Your task to perform on an android device: turn off notifications in google photos Image 0: 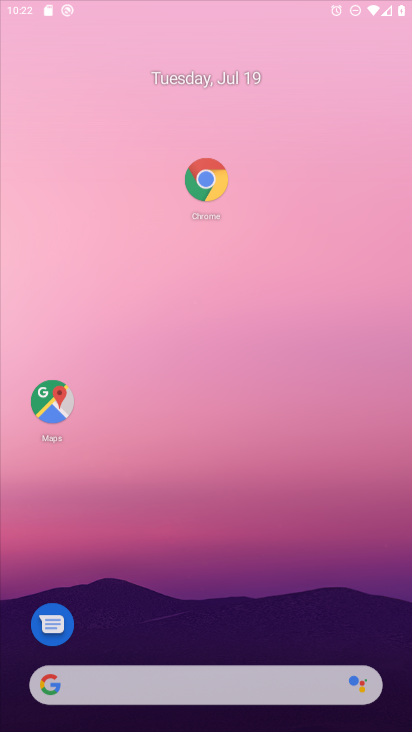
Step 0: press home button
Your task to perform on an android device: turn off notifications in google photos Image 1: 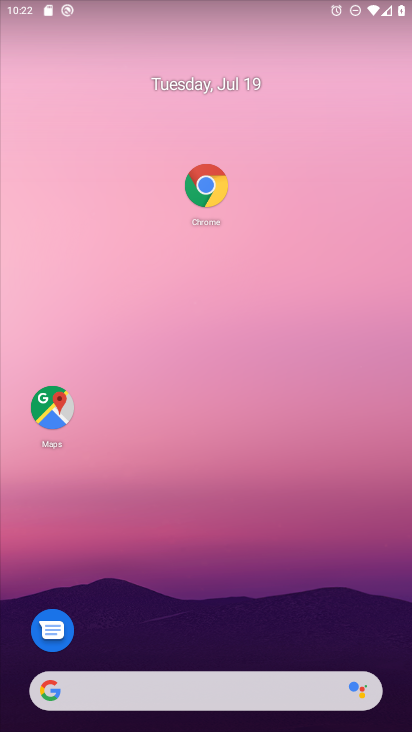
Step 1: drag from (161, 665) to (176, 2)
Your task to perform on an android device: turn off notifications in google photos Image 2: 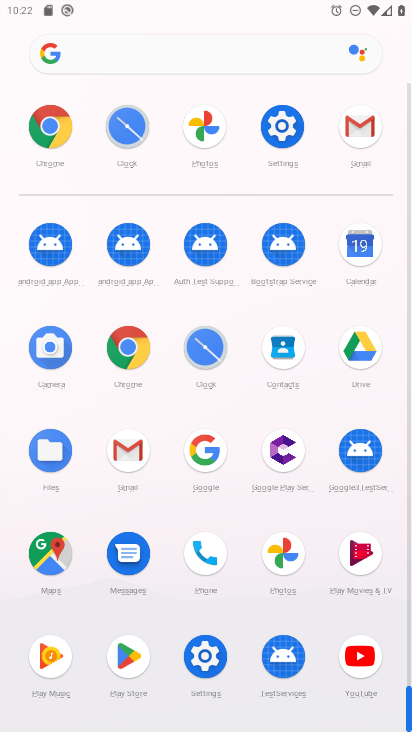
Step 2: click (275, 124)
Your task to perform on an android device: turn off notifications in google photos Image 3: 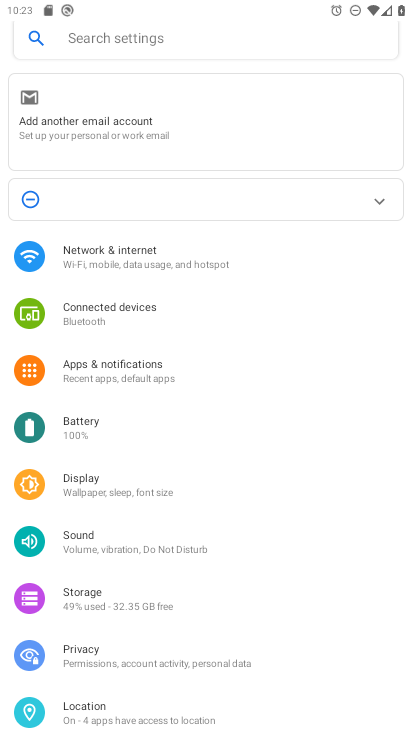
Step 3: click (137, 370)
Your task to perform on an android device: turn off notifications in google photos Image 4: 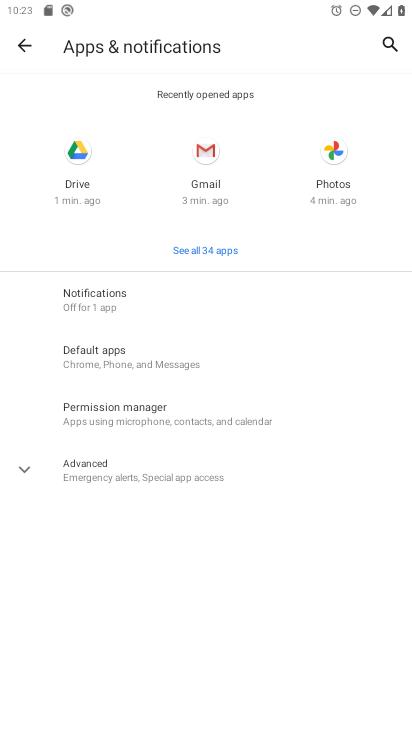
Step 4: press home button
Your task to perform on an android device: turn off notifications in google photos Image 5: 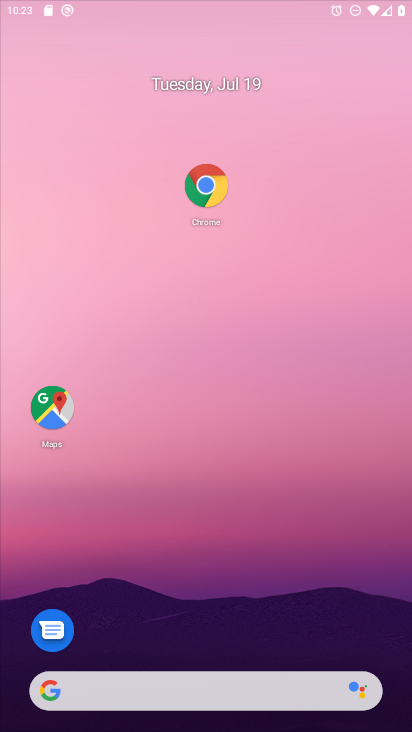
Step 5: drag from (168, 658) to (258, 5)
Your task to perform on an android device: turn off notifications in google photos Image 6: 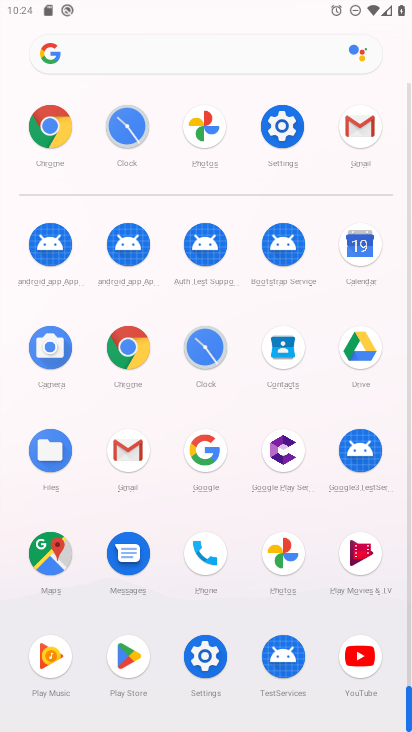
Step 6: click (277, 565)
Your task to perform on an android device: turn off notifications in google photos Image 7: 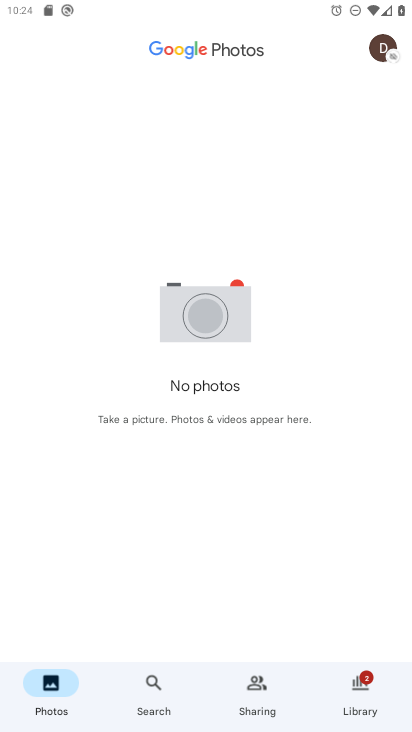
Step 7: click (383, 55)
Your task to perform on an android device: turn off notifications in google photos Image 8: 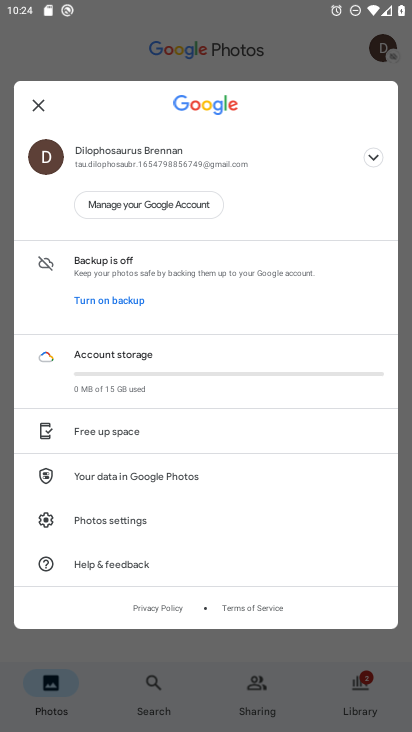
Step 8: click (133, 523)
Your task to perform on an android device: turn off notifications in google photos Image 9: 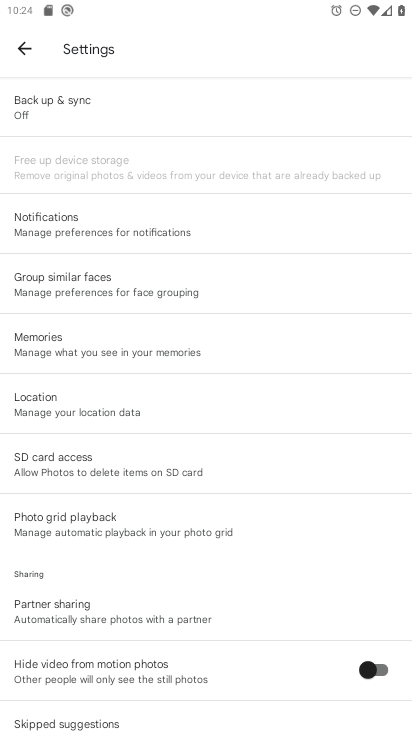
Step 9: click (128, 223)
Your task to perform on an android device: turn off notifications in google photos Image 10: 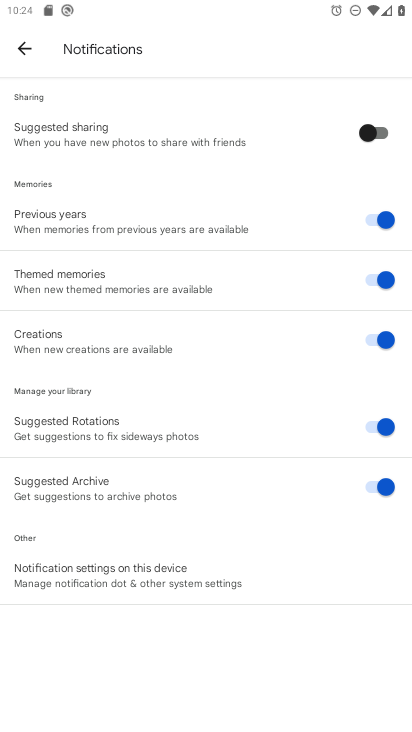
Step 10: click (142, 571)
Your task to perform on an android device: turn off notifications in google photos Image 11: 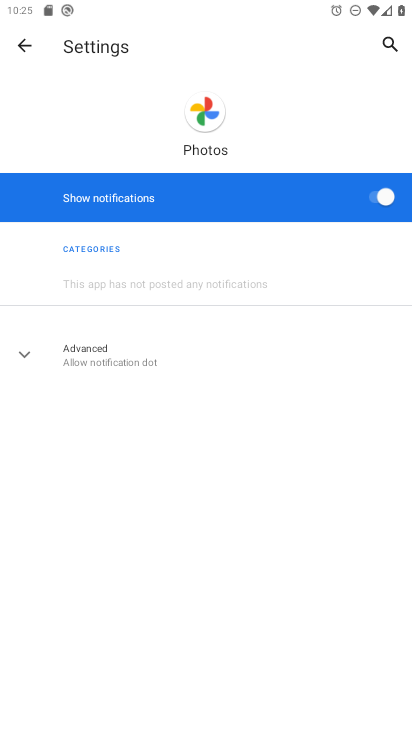
Step 11: click (369, 204)
Your task to perform on an android device: turn off notifications in google photos Image 12: 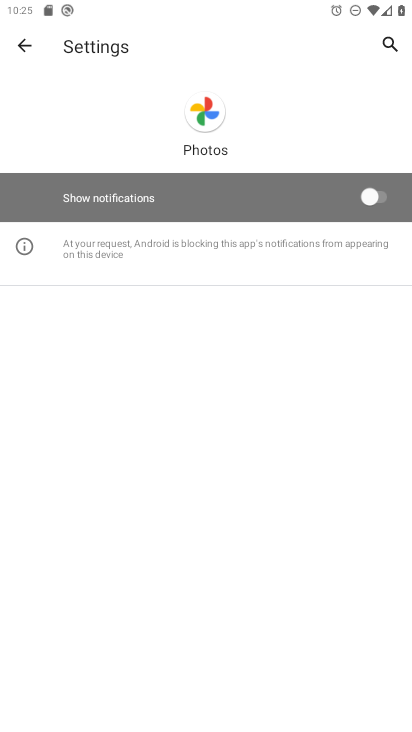
Step 12: task complete